Your task to perform on an android device: move an email to a new category in the gmail app Image 0: 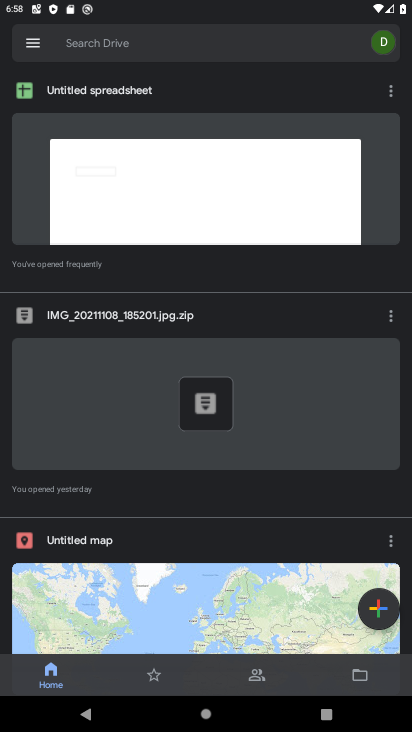
Step 0: press home button
Your task to perform on an android device: move an email to a new category in the gmail app Image 1: 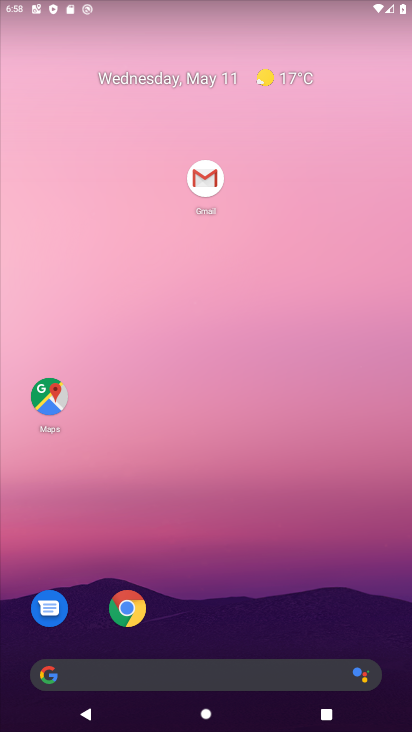
Step 1: drag from (276, 535) to (276, 332)
Your task to perform on an android device: move an email to a new category in the gmail app Image 2: 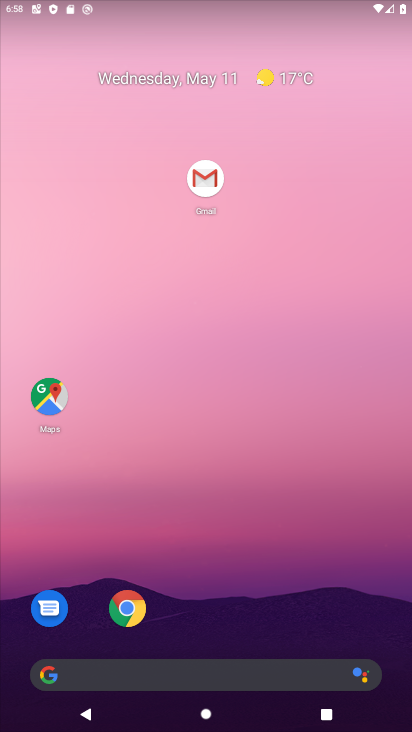
Step 2: click (211, 185)
Your task to perform on an android device: move an email to a new category in the gmail app Image 3: 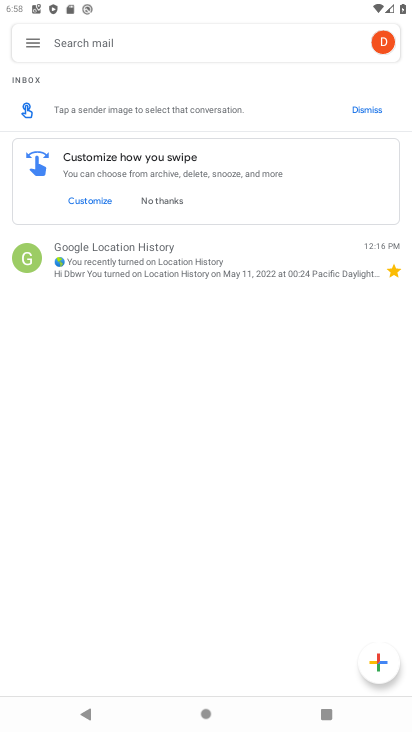
Step 3: click (181, 269)
Your task to perform on an android device: move an email to a new category in the gmail app Image 4: 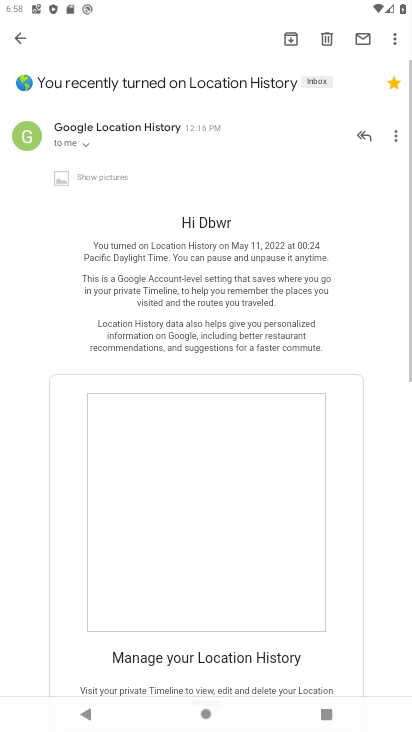
Step 4: click (391, 46)
Your task to perform on an android device: move an email to a new category in the gmail app Image 5: 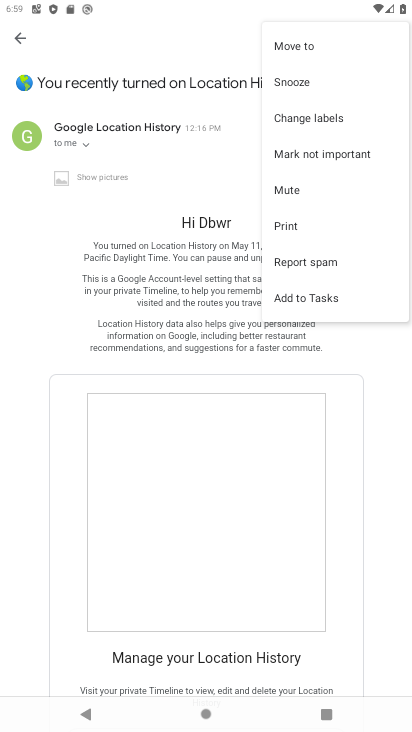
Step 5: click (338, 108)
Your task to perform on an android device: move an email to a new category in the gmail app Image 6: 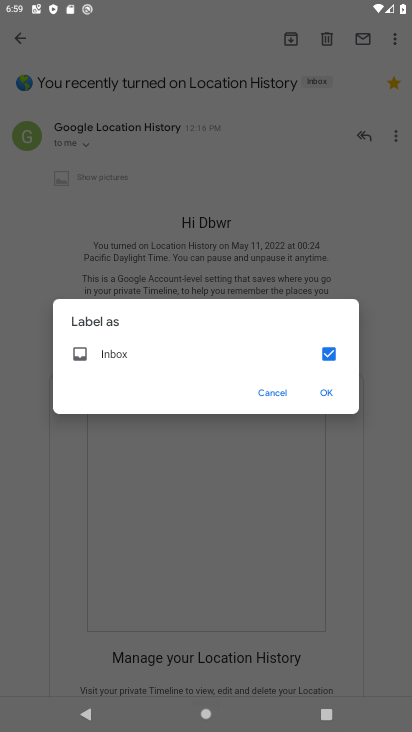
Step 6: click (328, 395)
Your task to perform on an android device: move an email to a new category in the gmail app Image 7: 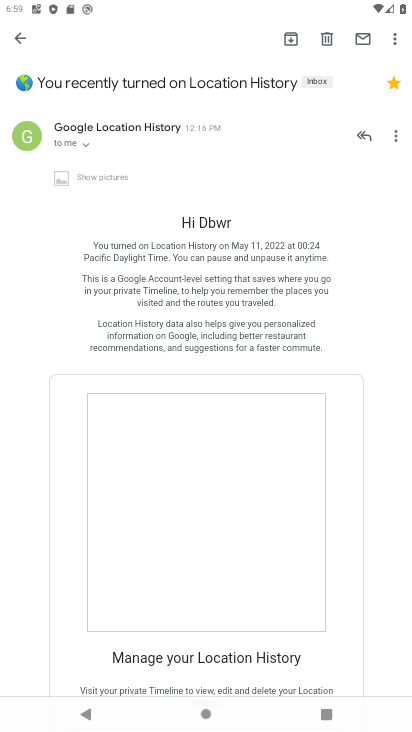
Step 7: task complete